Your task to perform on an android device: Open ESPN.com Image 0: 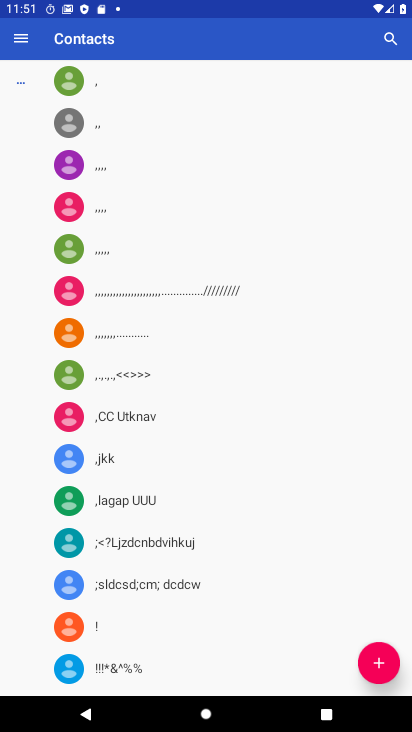
Step 0: press back button
Your task to perform on an android device: Open ESPN.com Image 1: 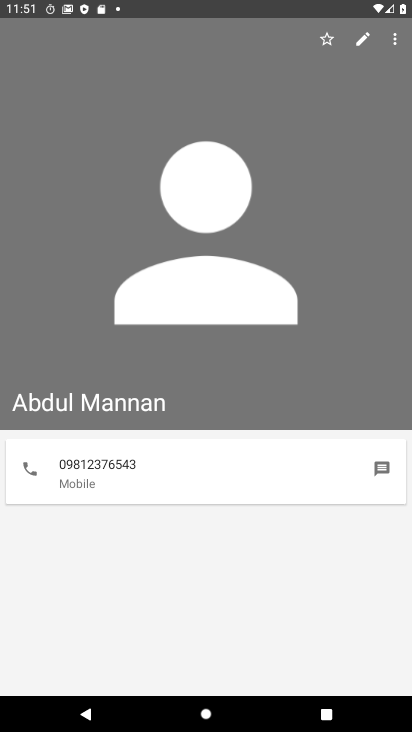
Step 1: press back button
Your task to perform on an android device: Open ESPN.com Image 2: 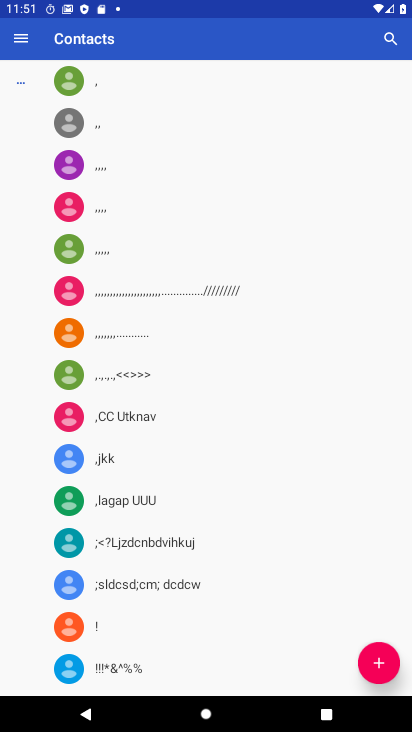
Step 2: press back button
Your task to perform on an android device: Open ESPN.com Image 3: 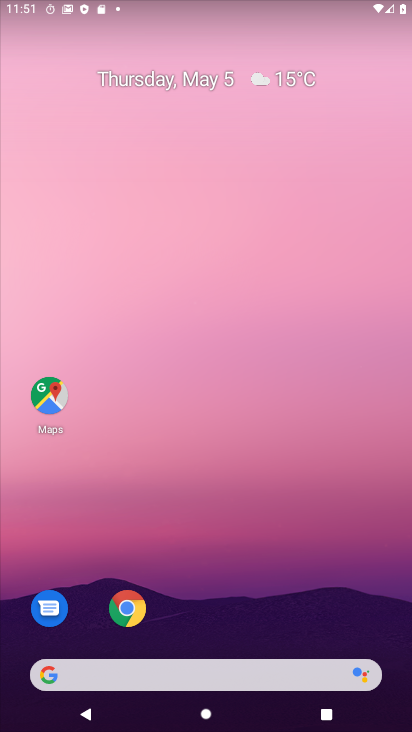
Step 3: click (127, 607)
Your task to perform on an android device: Open ESPN.com Image 4: 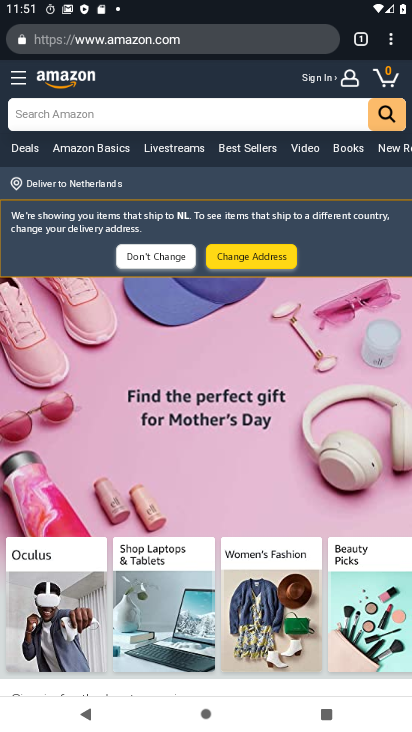
Step 4: click (267, 44)
Your task to perform on an android device: Open ESPN.com Image 5: 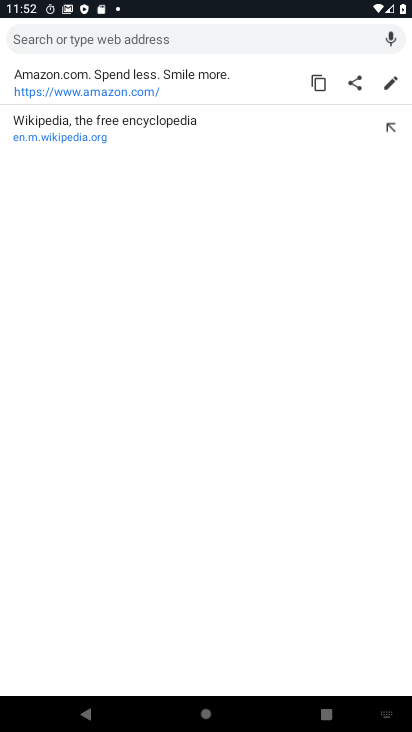
Step 5: type "ESPN.com"
Your task to perform on an android device: Open ESPN.com Image 6: 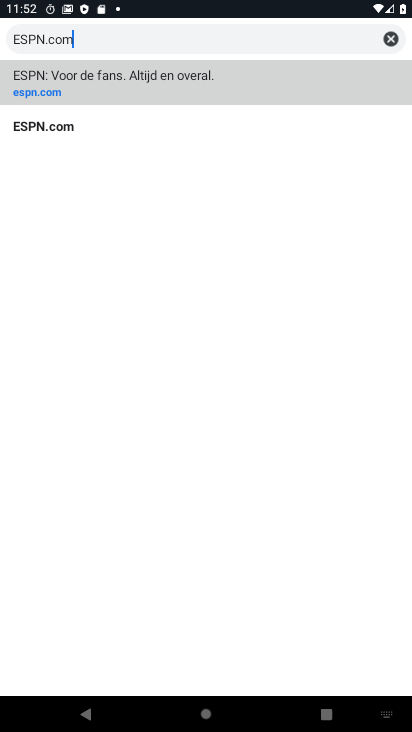
Step 6: type ""
Your task to perform on an android device: Open ESPN.com Image 7: 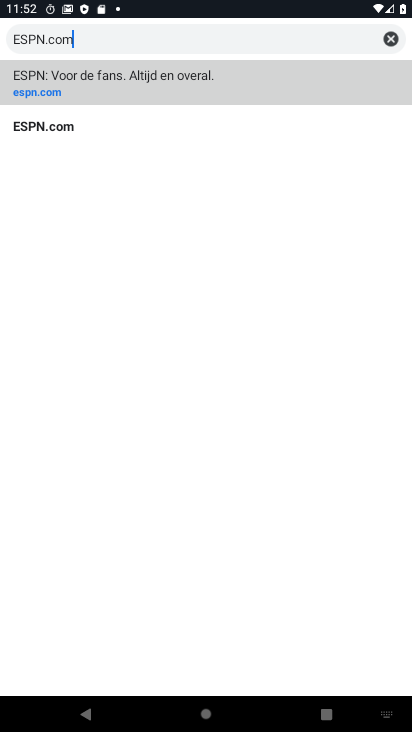
Step 7: click (55, 124)
Your task to perform on an android device: Open ESPN.com Image 8: 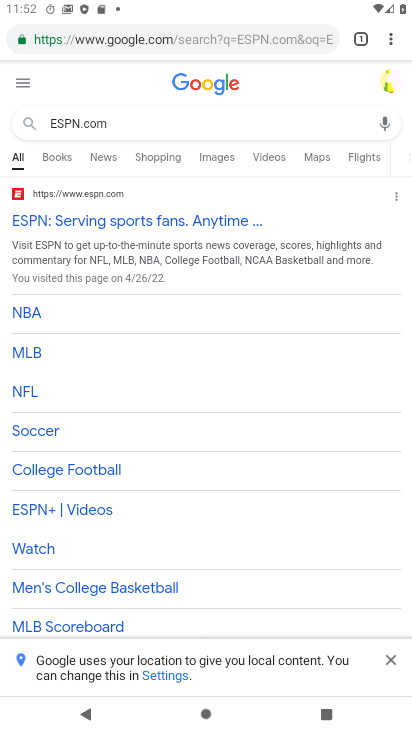
Step 8: task complete